Your task to perform on an android device: move a message to another label in the gmail app Image 0: 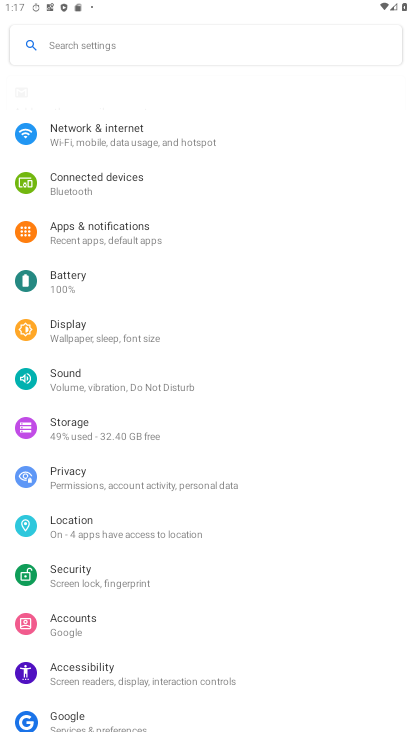
Step 0: press home button
Your task to perform on an android device: move a message to another label in the gmail app Image 1: 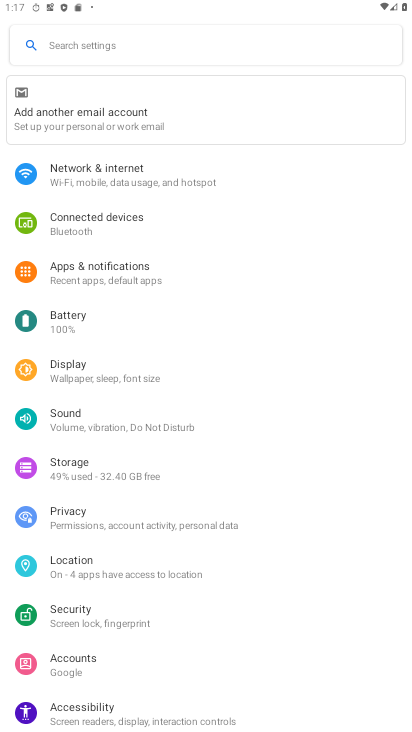
Step 1: drag from (229, 619) to (283, 0)
Your task to perform on an android device: move a message to another label in the gmail app Image 2: 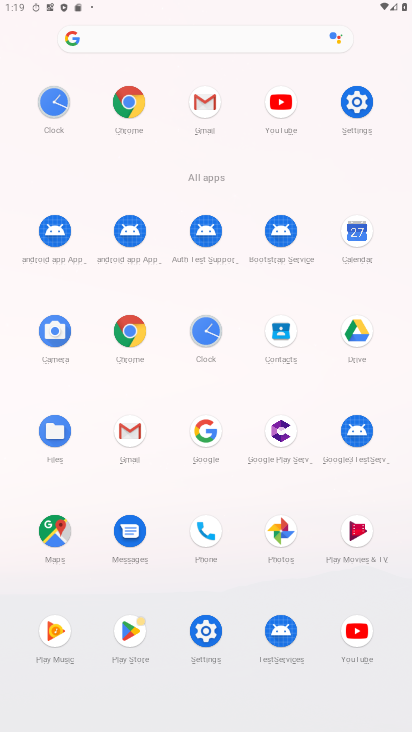
Step 2: click (113, 436)
Your task to perform on an android device: move a message to another label in the gmail app Image 3: 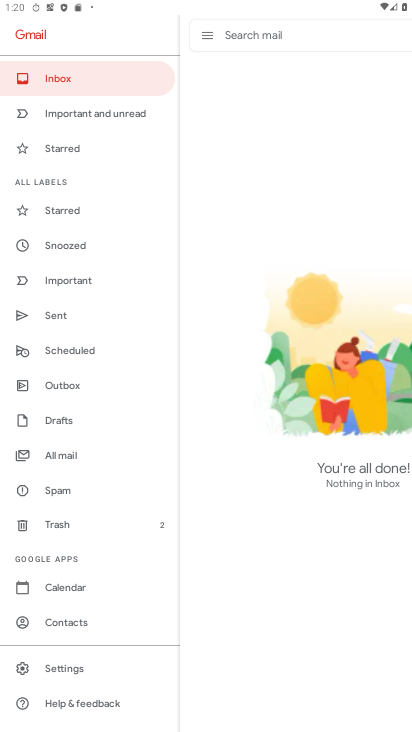
Step 3: task complete